Your task to perform on an android device: Open Google Chrome Image 0: 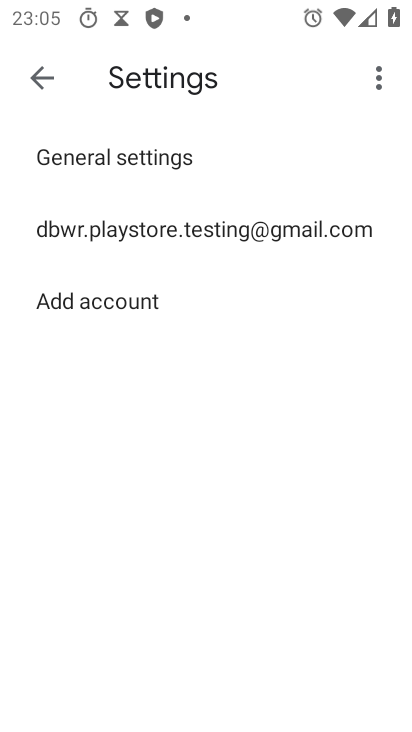
Step 0: click (38, 83)
Your task to perform on an android device: Open Google Chrome Image 1: 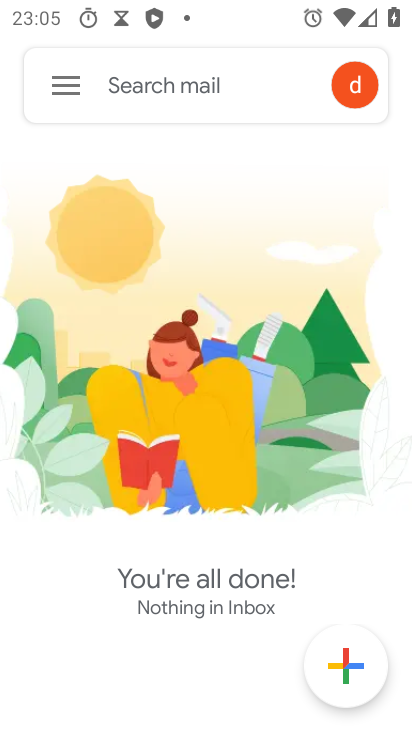
Step 1: press back button
Your task to perform on an android device: Open Google Chrome Image 2: 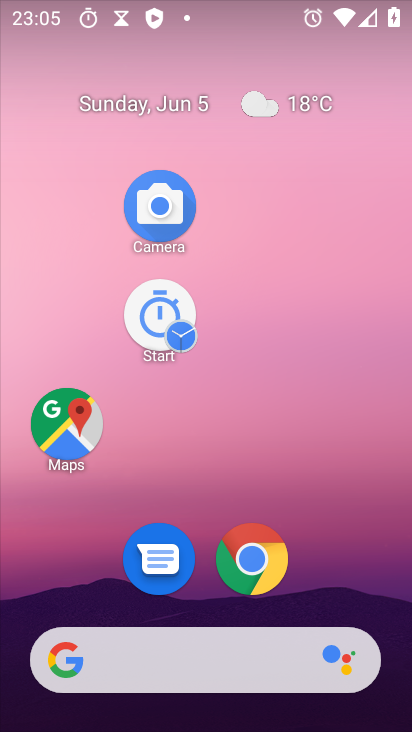
Step 2: drag from (198, 686) to (113, 170)
Your task to perform on an android device: Open Google Chrome Image 3: 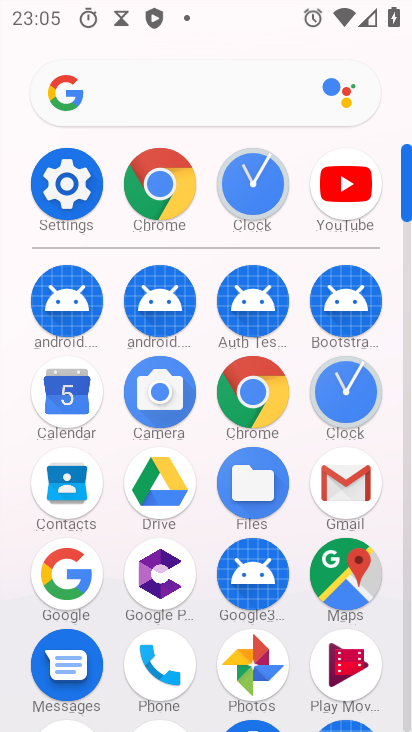
Step 3: click (159, 206)
Your task to perform on an android device: Open Google Chrome Image 4: 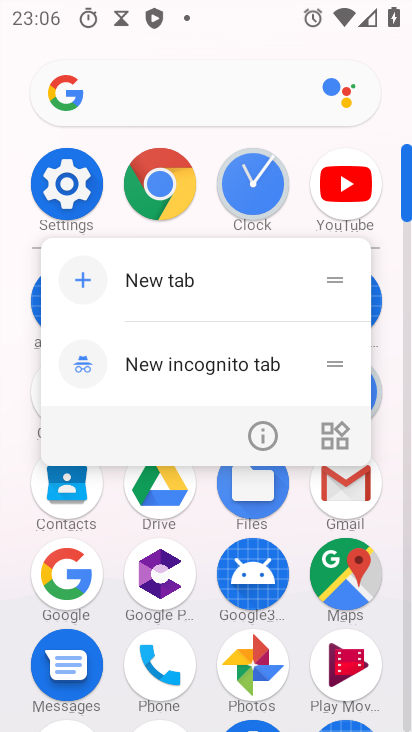
Step 4: click (159, 175)
Your task to perform on an android device: Open Google Chrome Image 5: 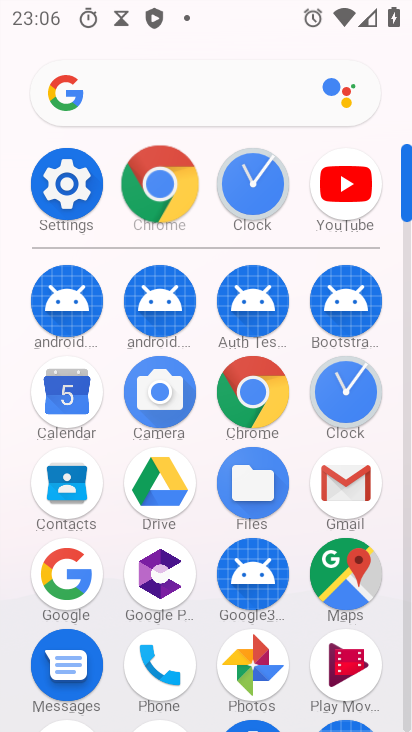
Step 5: click (159, 177)
Your task to perform on an android device: Open Google Chrome Image 6: 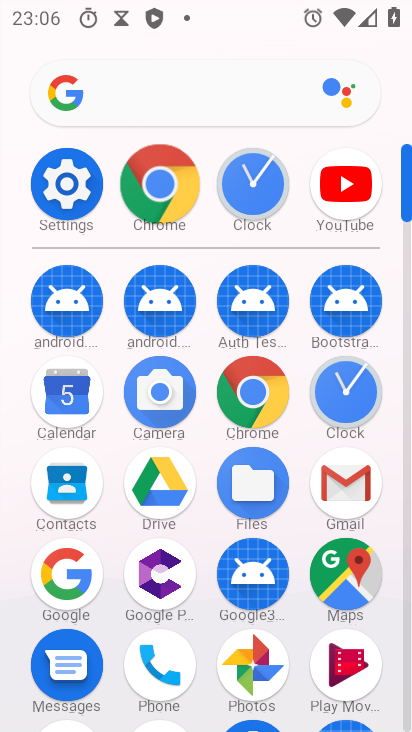
Step 6: click (166, 177)
Your task to perform on an android device: Open Google Chrome Image 7: 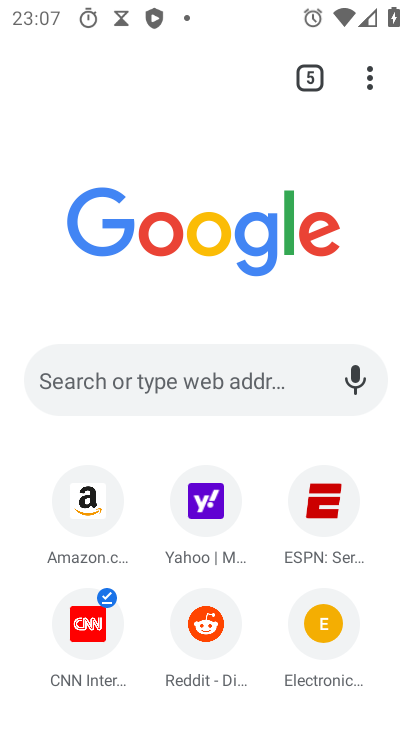
Step 7: click (363, 90)
Your task to perform on an android device: Open Google Chrome Image 8: 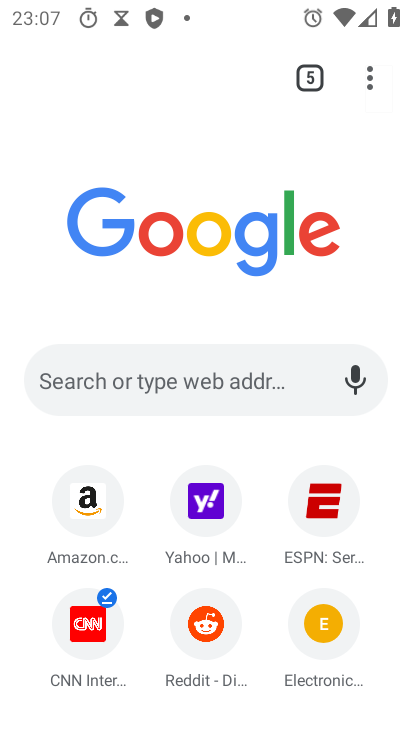
Step 8: click (365, 85)
Your task to perform on an android device: Open Google Chrome Image 9: 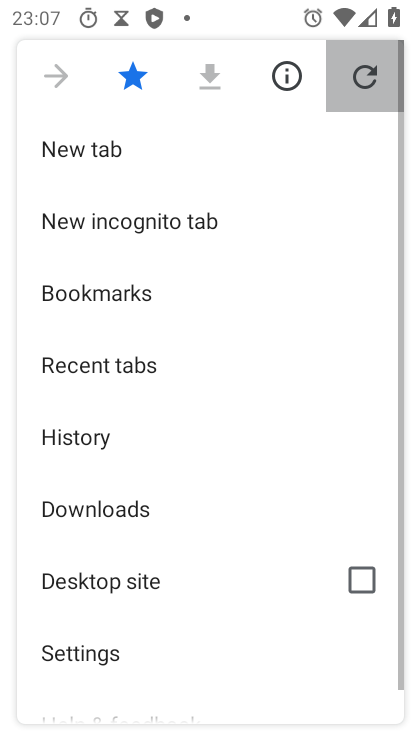
Step 9: drag from (364, 84) to (93, 110)
Your task to perform on an android device: Open Google Chrome Image 10: 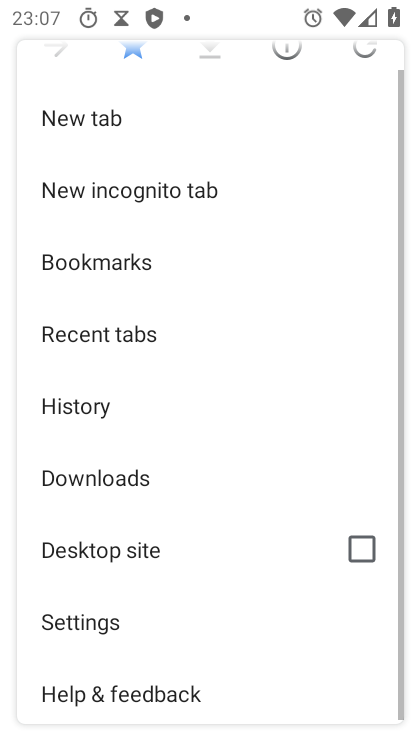
Step 10: click (97, 110)
Your task to perform on an android device: Open Google Chrome Image 11: 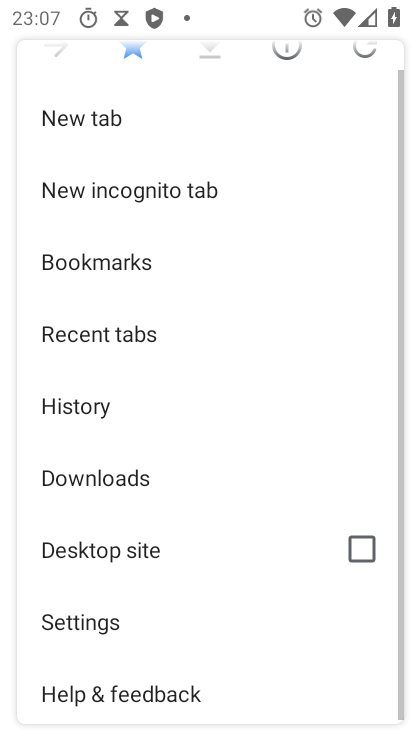
Step 11: click (99, 112)
Your task to perform on an android device: Open Google Chrome Image 12: 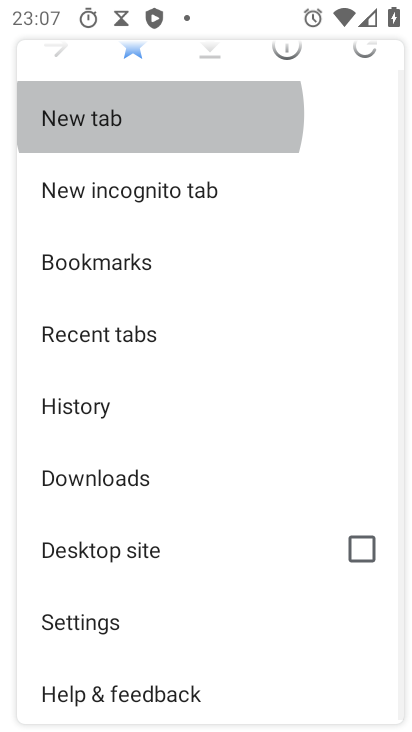
Step 12: click (99, 112)
Your task to perform on an android device: Open Google Chrome Image 13: 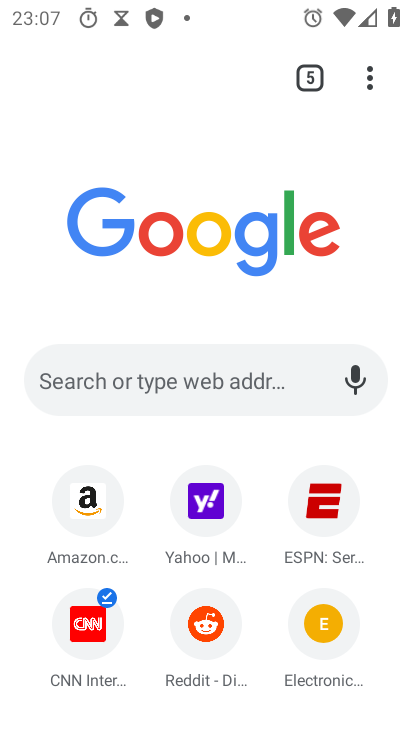
Step 13: click (114, 140)
Your task to perform on an android device: Open Google Chrome Image 14: 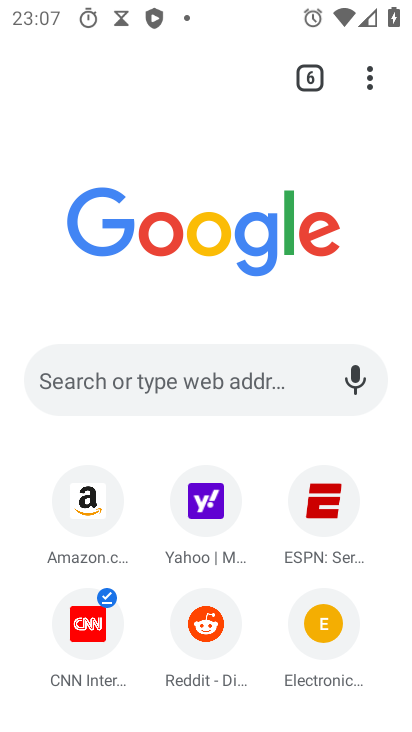
Step 14: task complete